Your task to perform on an android device: uninstall "Google Translate" Image 0: 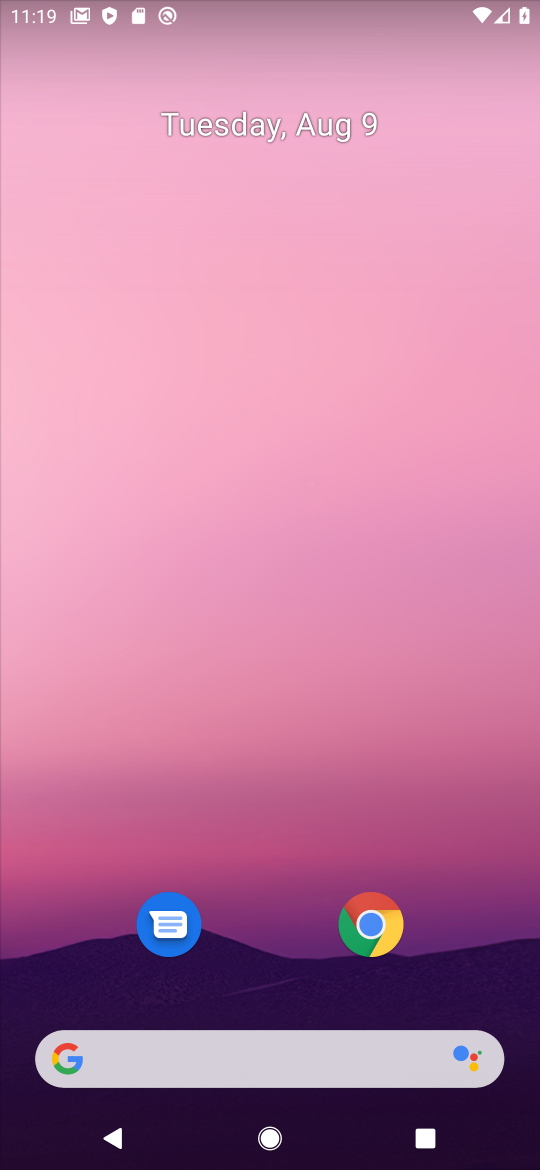
Step 0: drag from (333, 878) to (382, 84)
Your task to perform on an android device: uninstall "Google Translate" Image 1: 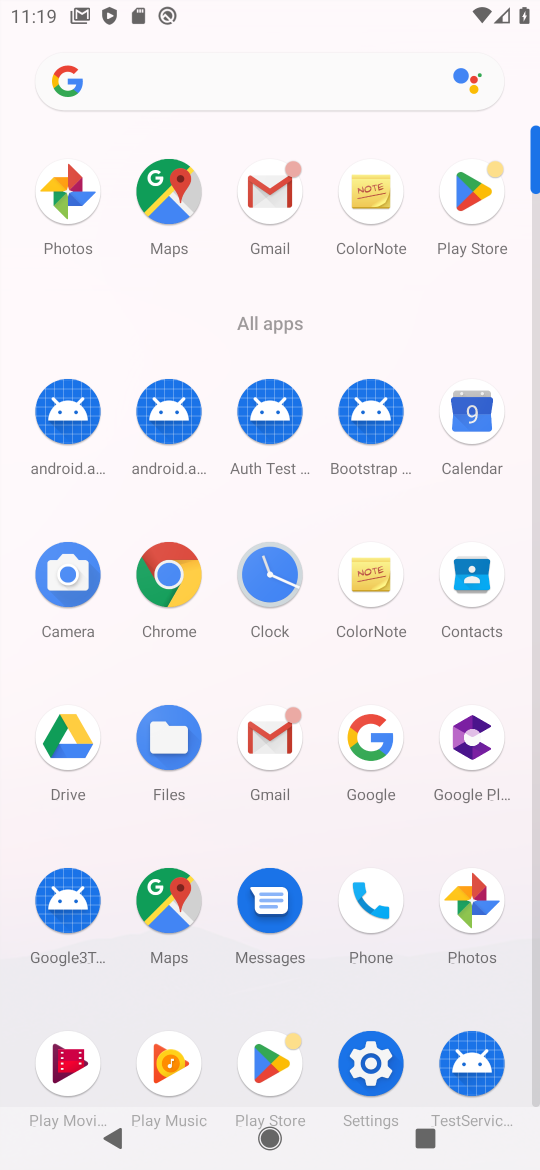
Step 1: click (478, 157)
Your task to perform on an android device: uninstall "Google Translate" Image 2: 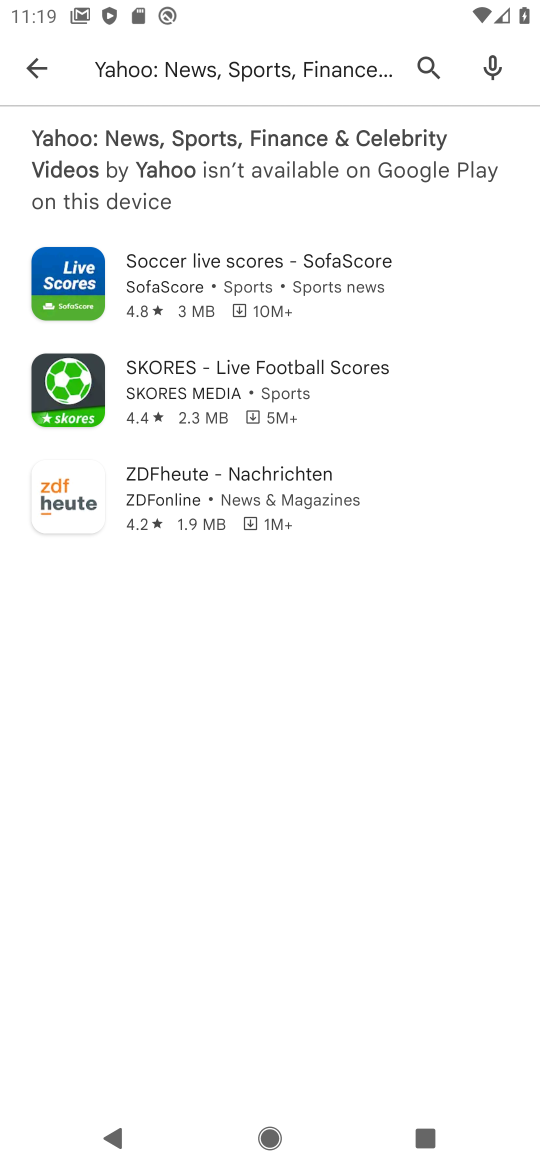
Step 2: click (416, 58)
Your task to perform on an android device: uninstall "Google Translate" Image 3: 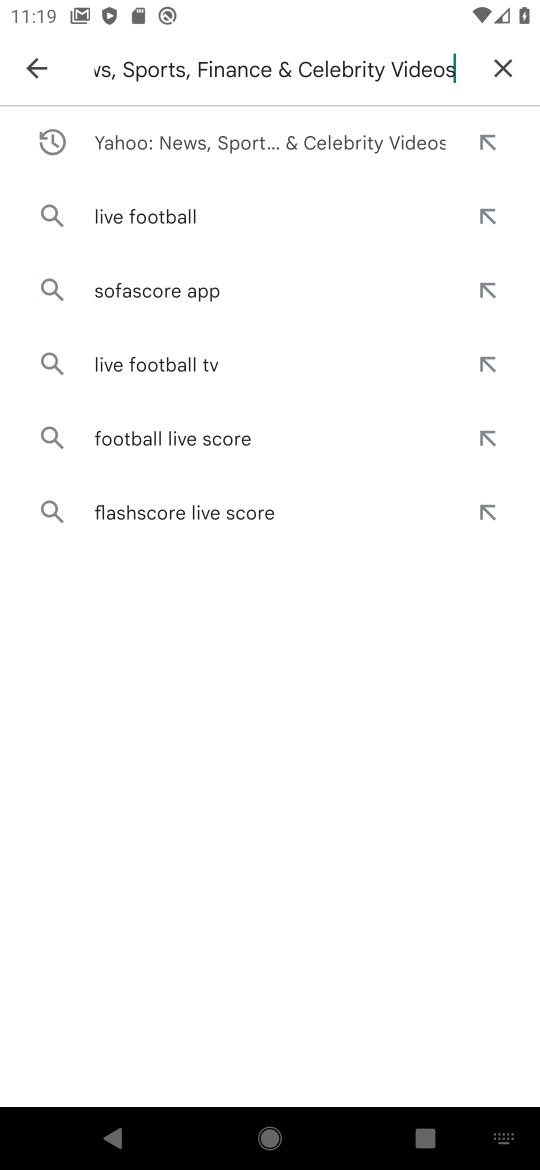
Step 3: click (499, 68)
Your task to perform on an android device: uninstall "Google Translate" Image 4: 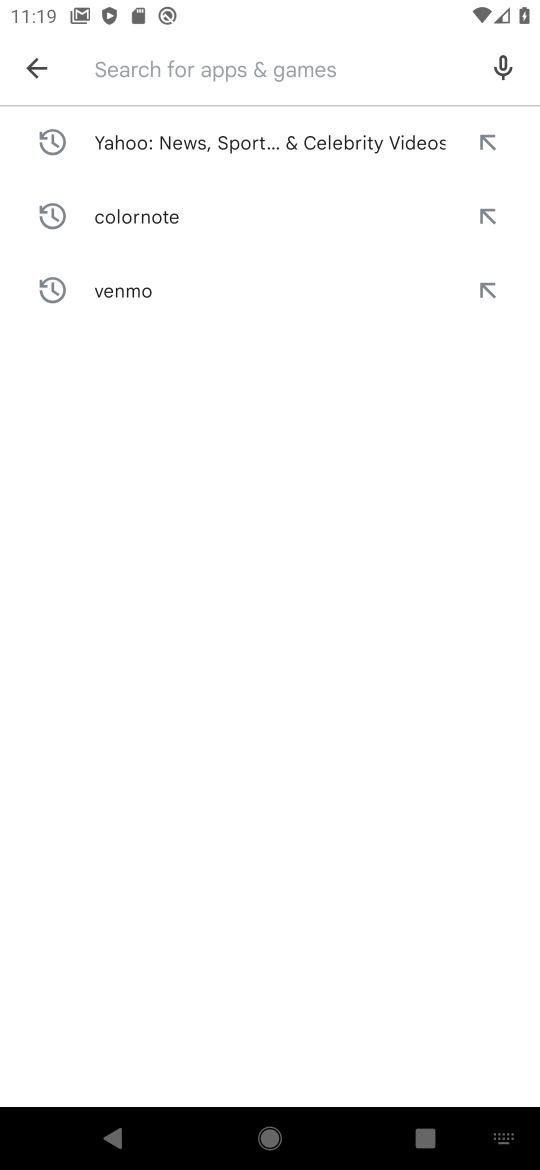
Step 4: click (168, 68)
Your task to perform on an android device: uninstall "Google Translate" Image 5: 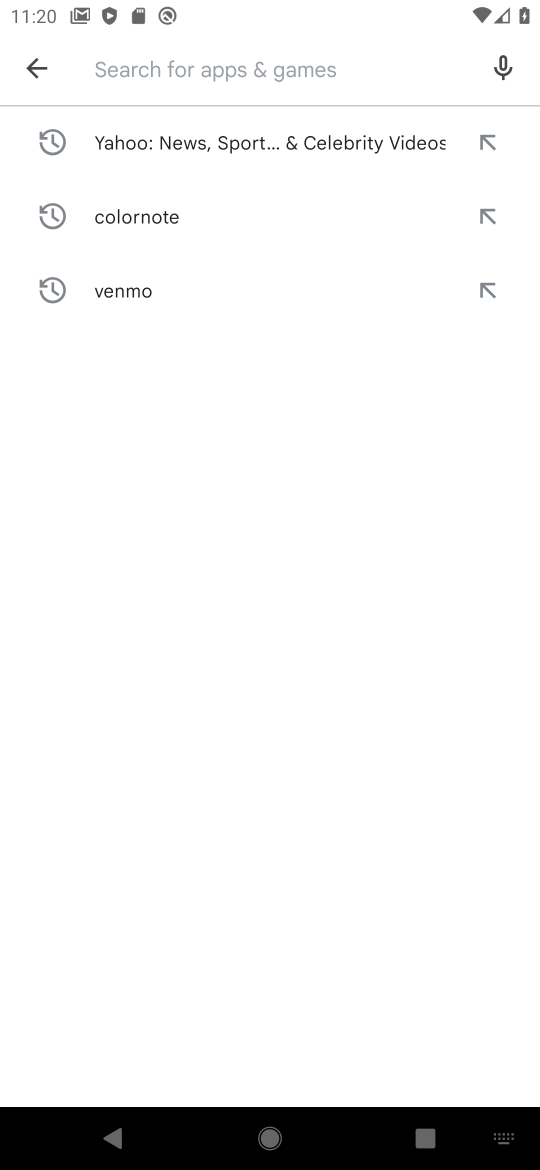
Step 5: type "google translater"
Your task to perform on an android device: uninstall "Google Translate" Image 6: 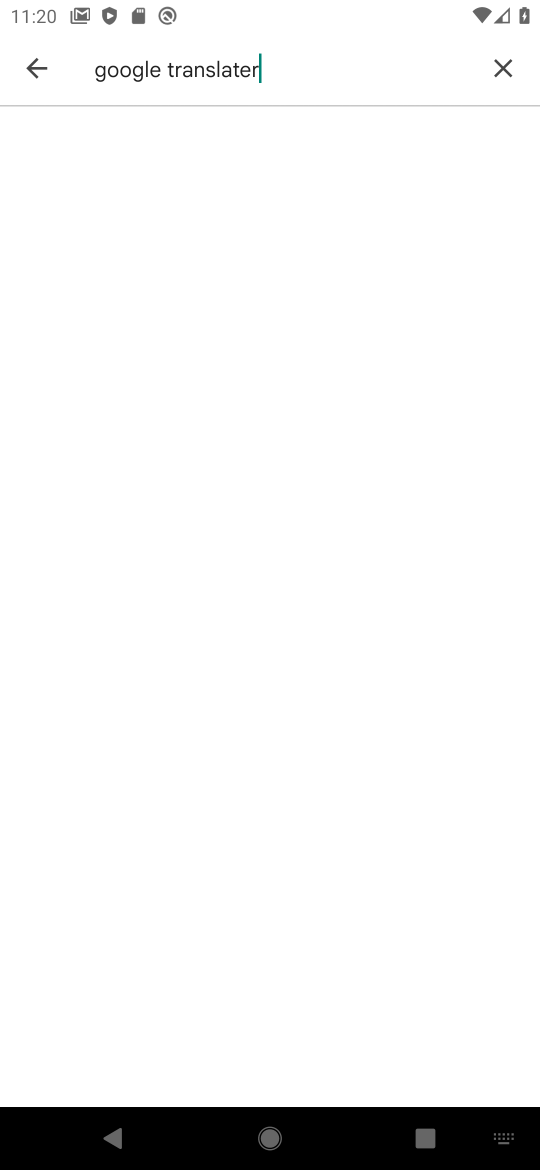
Step 6: click (505, 57)
Your task to perform on an android device: uninstall "Google Translate" Image 7: 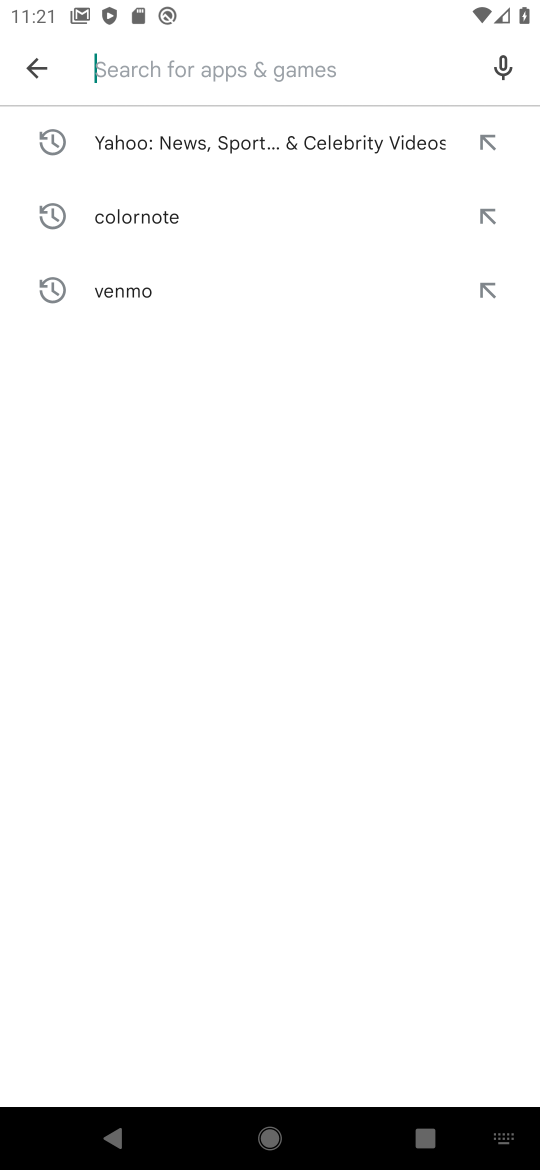
Step 7: click (202, 94)
Your task to perform on an android device: uninstall "Google Translate" Image 8: 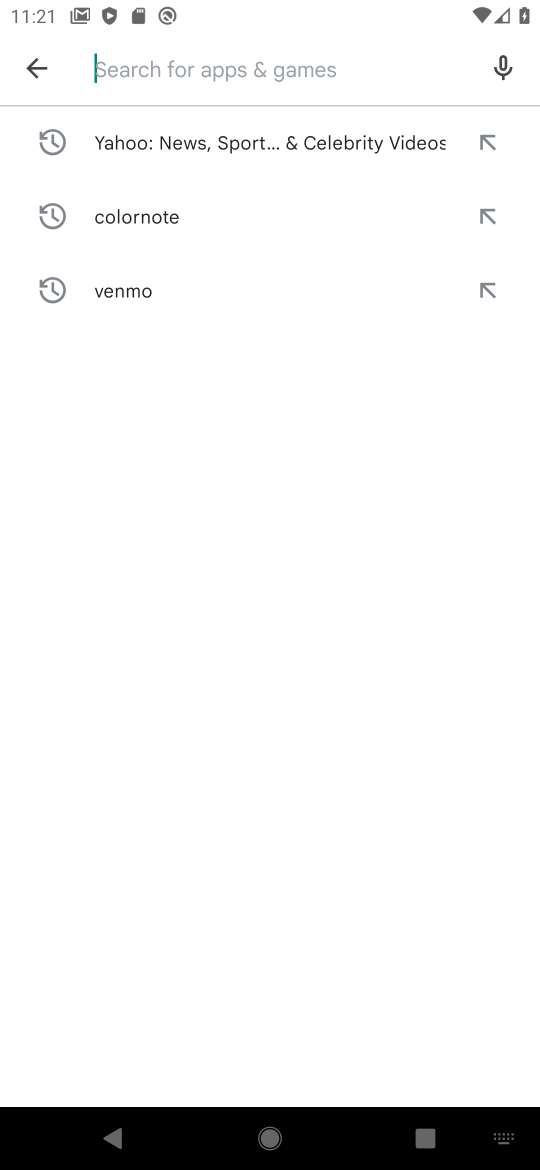
Step 8: type "Google Translate"
Your task to perform on an android device: uninstall "Google Translate" Image 9: 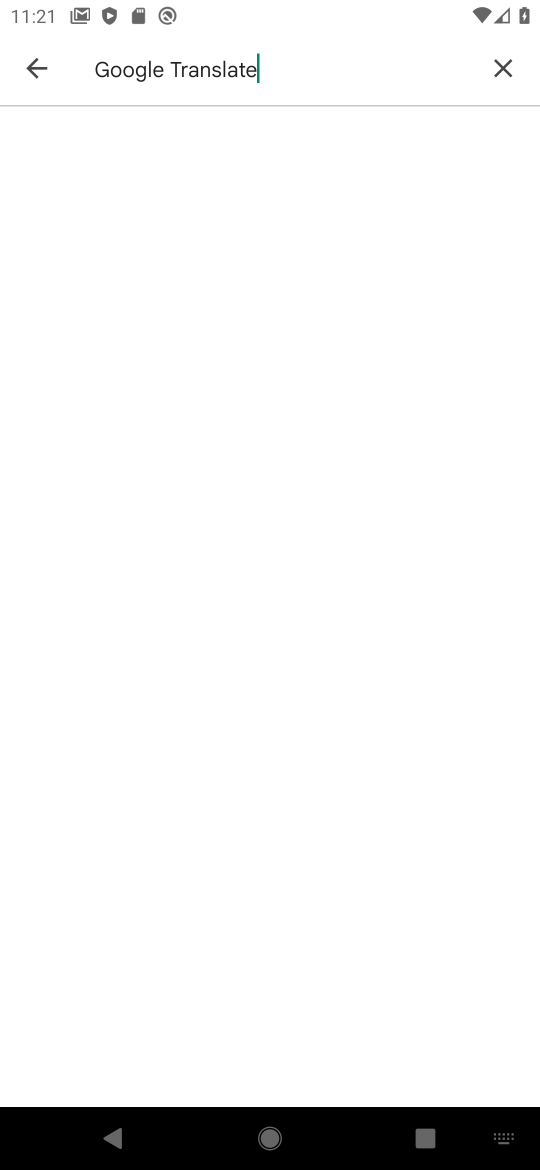
Step 9: task complete